Your task to perform on an android device: Open network settings Image 0: 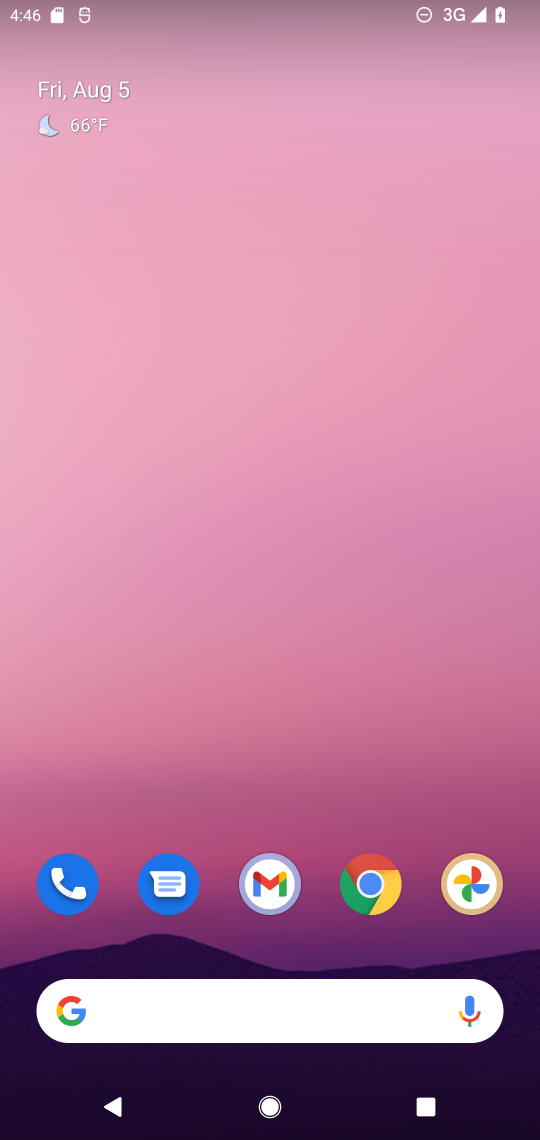
Step 0: drag from (483, 940) to (150, 18)
Your task to perform on an android device: Open network settings Image 1: 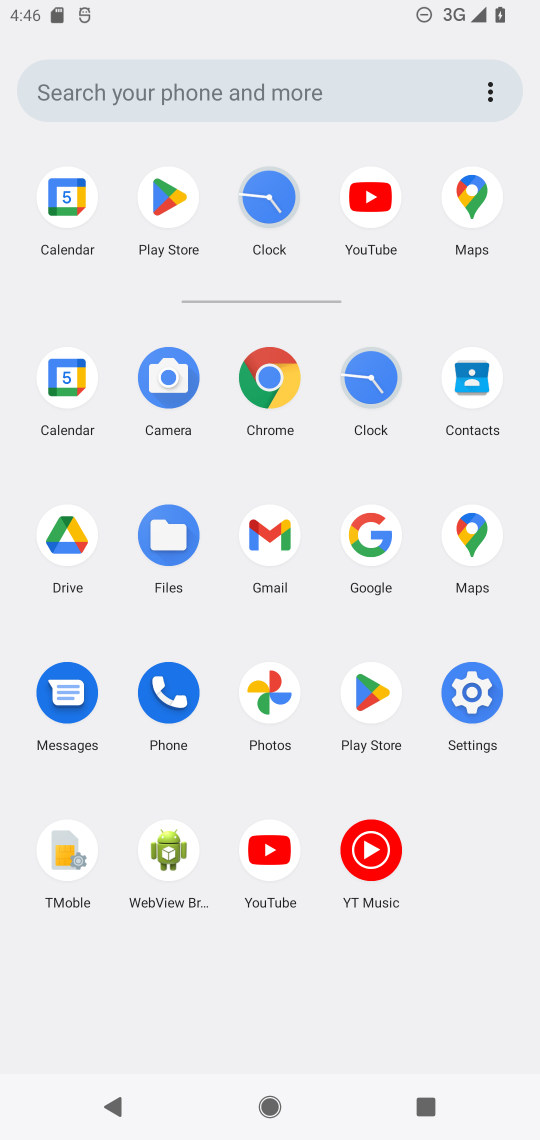
Step 1: click (479, 672)
Your task to perform on an android device: Open network settings Image 2: 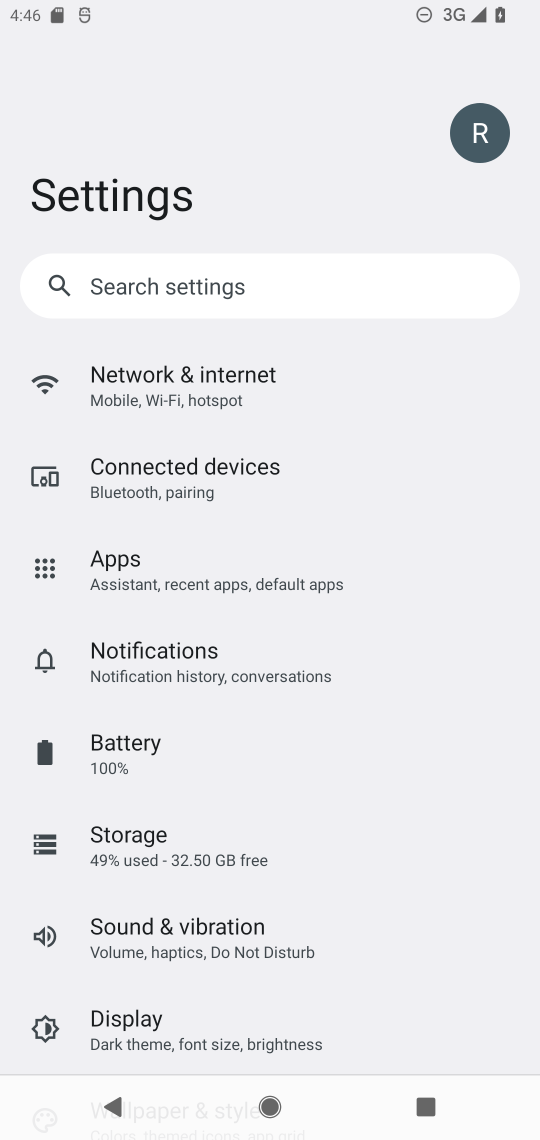
Step 2: click (177, 403)
Your task to perform on an android device: Open network settings Image 3: 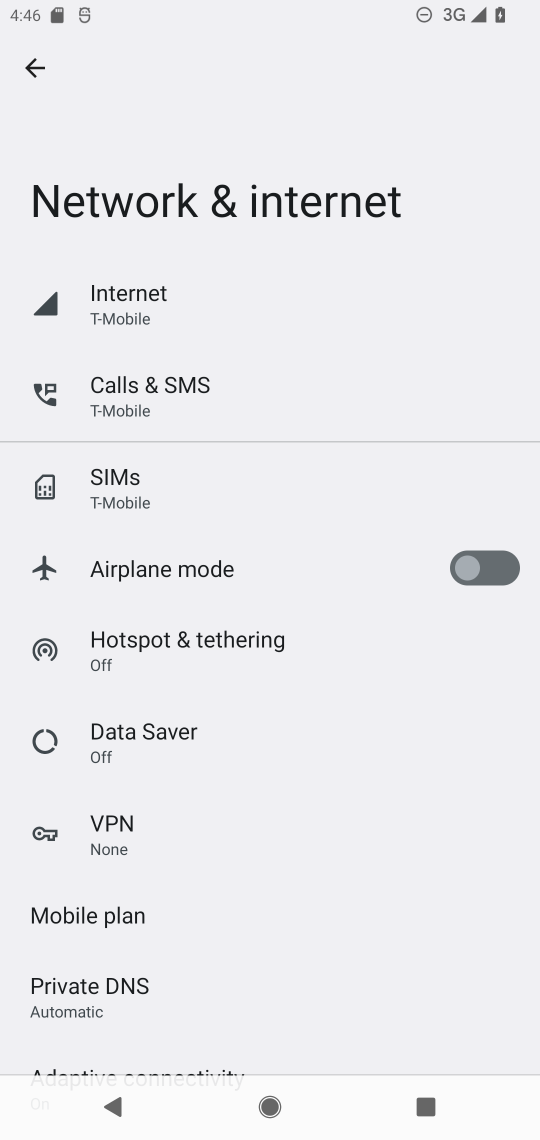
Step 3: task complete